Your task to perform on an android device: Open calendar and show me the third week of next month Image 0: 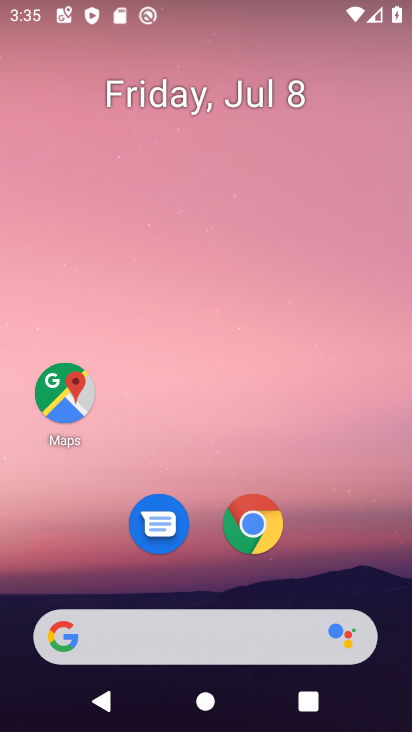
Step 0: drag from (184, 430) to (212, 2)
Your task to perform on an android device: Open calendar and show me the third week of next month Image 1: 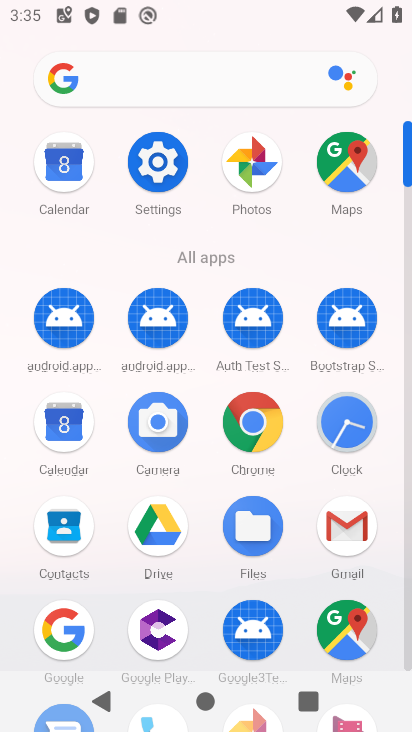
Step 1: click (66, 166)
Your task to perform on an android device: Open calendar and show me the third week of next month Image 2: 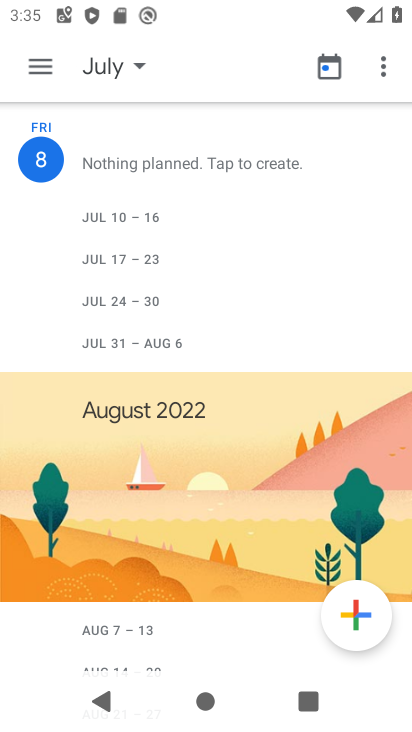
Step 2: click (39, 66)
Your task to perform on an android device: Open calendar and show me the third week of next month Image 3: 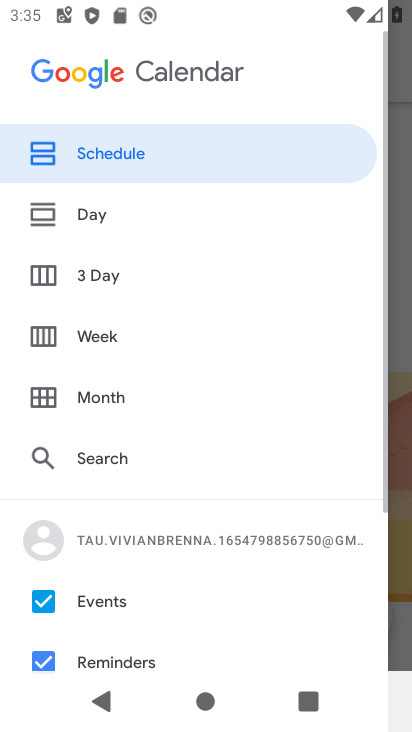
Step 3: click (40, 390)
Your task to perform on an android device: Open calendar and show me the third week of next month Image 4: 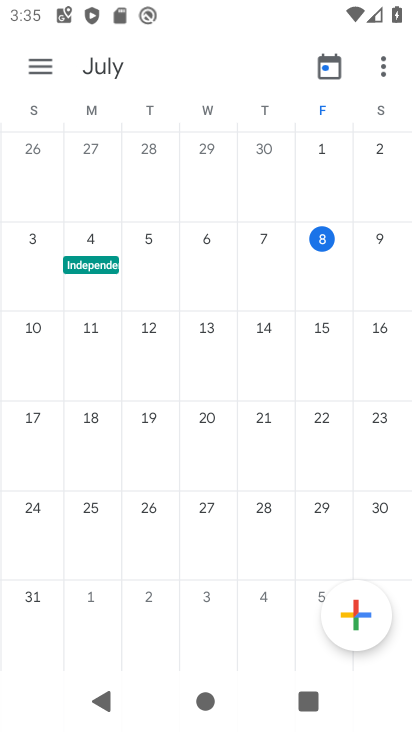
Step 4: drag from (383, 385) to (3, 327)
Your task to perform on an android device: Open calendar and show me the third week of next month Image 5: 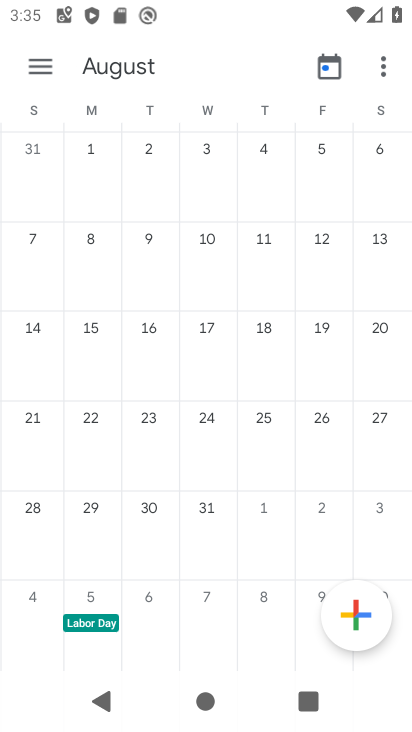
Step 5: click (40, 420)
Your task to perform on an android device: Open calendar and show me the third week of next month Image 6: 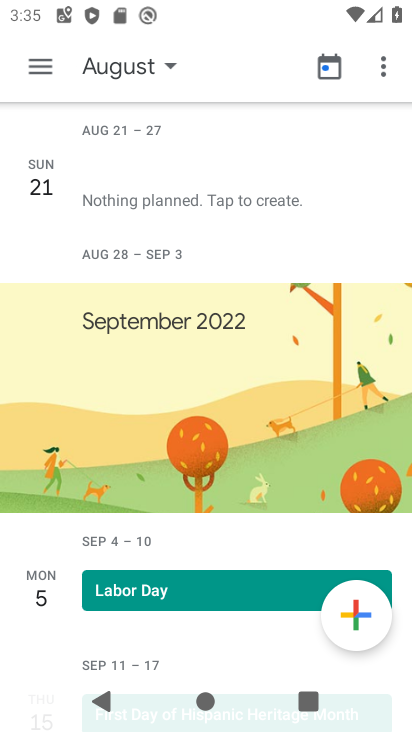
Step 6: click (44, 70)
Your task to perform on an android device: Open calendar and show me the third week of next month Image 7: 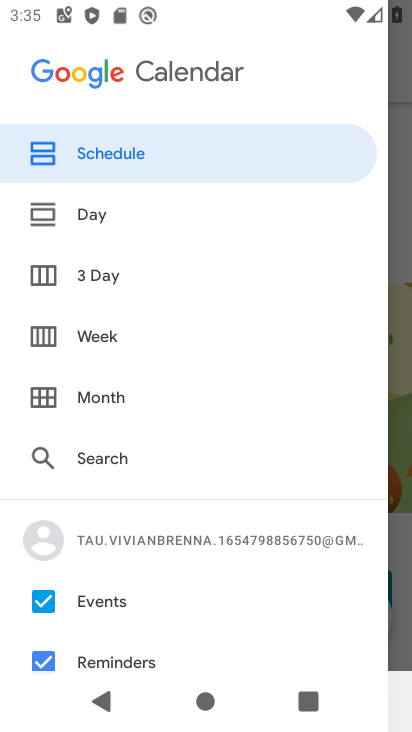
Step 7: click (45, 331)
Your task to perform on an android device: Open calendar and show me the third week of next month Image 8: 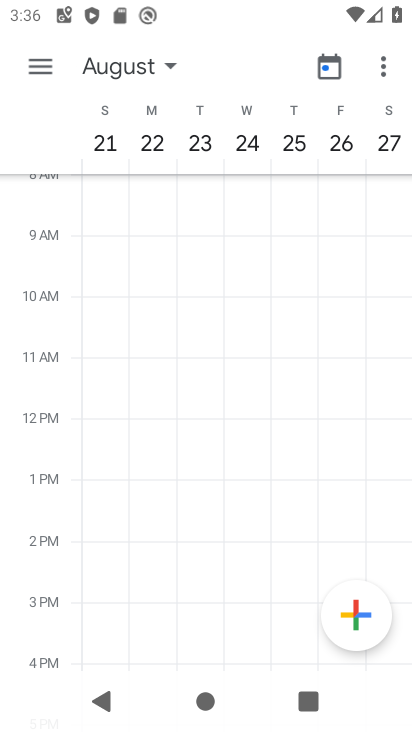
Step 8: task complete